Your task to perform on an android device: Open Yahoo.com Image 0: 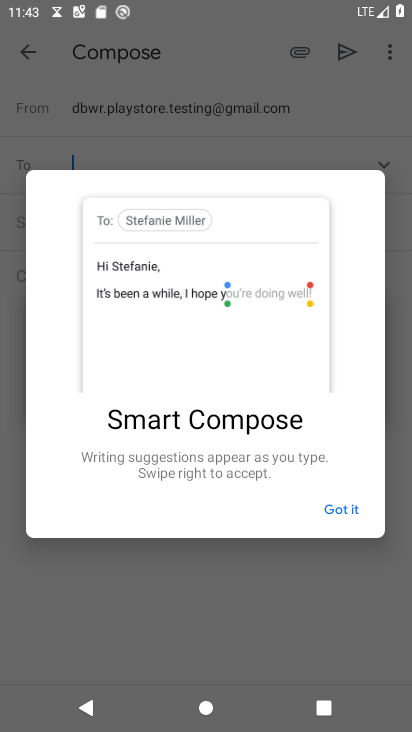
Step 0: press home button
Your task to perform on an android device: Open Yahoo.com Image 1: 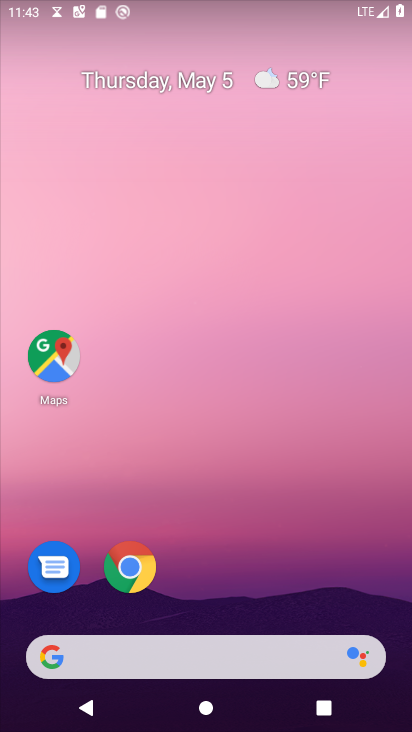
Step 1: click (128, 558)
Your task to perform on an android device: Open Yahoo.com Image 2: 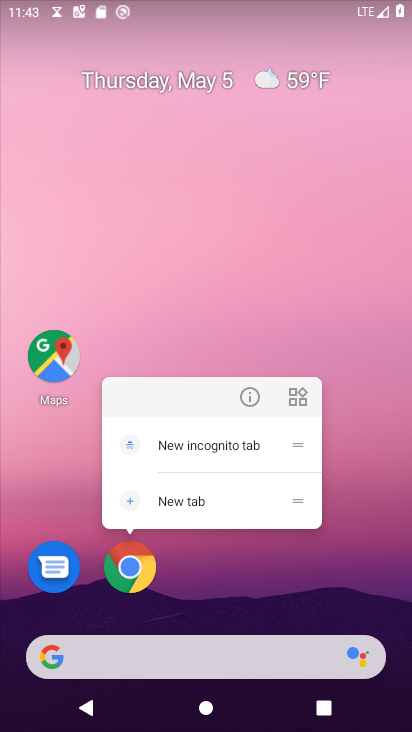
Step 2: click (123, 578)
Your task to perform on an android device: Open Yahoo.com Image 3: 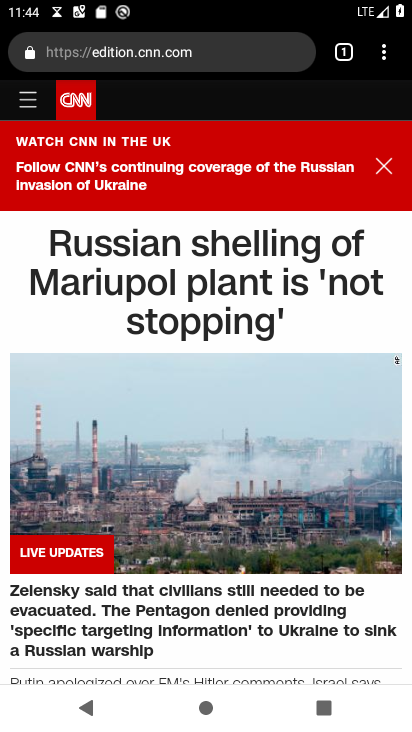
Step 3: click (112, 54)
Your task to perform on an android device: Open Yahoo.com Image 4: 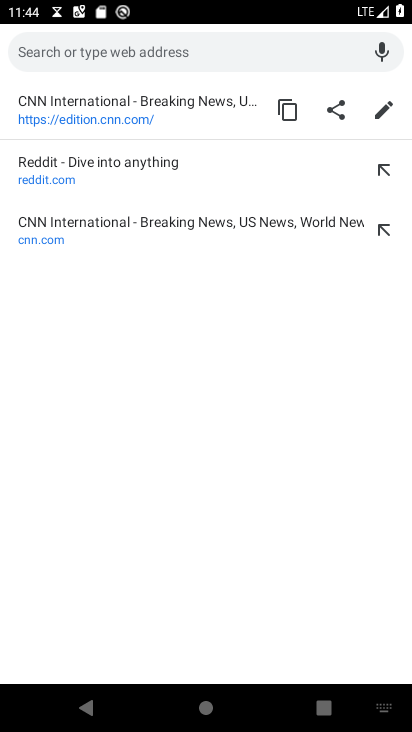
Step 4: type "yahoo.com"
Your task to perform on an android device: Open Yahoo.com Image 5: 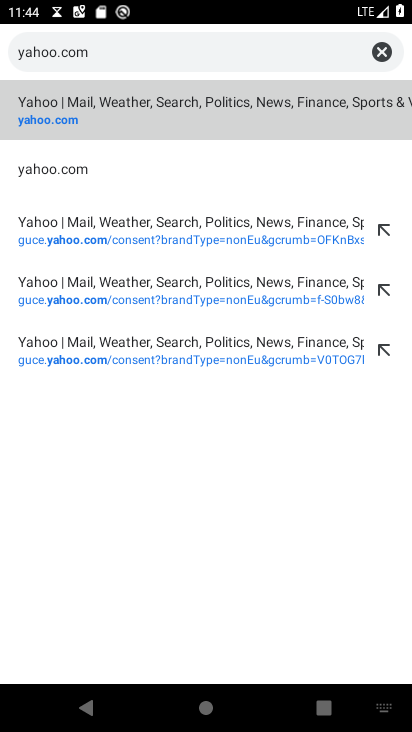
Step 5: click (43, 168)
Your task to perform on an android device: Open Yahoo.com Image 6: 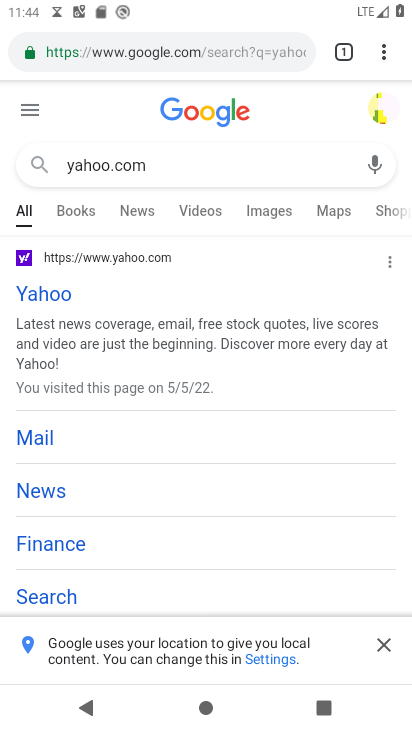
Step 6: click (19, 284)
Your task to perform on an android device: Open Yahoo.com Image 7: 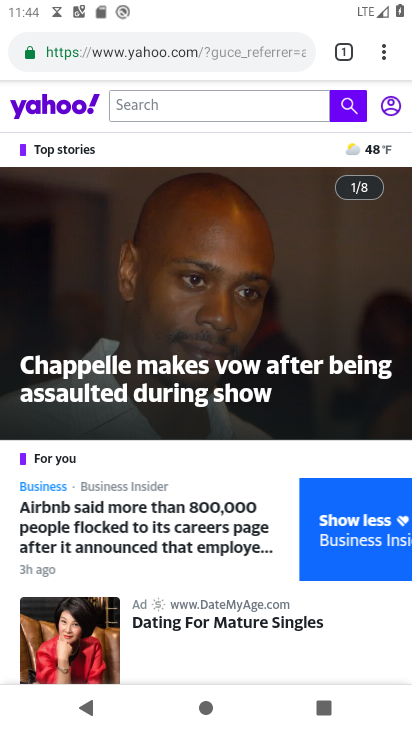
Step 7: task complete